Your task to perform on an android device: Go to calendar. Show me events next week Image 0: 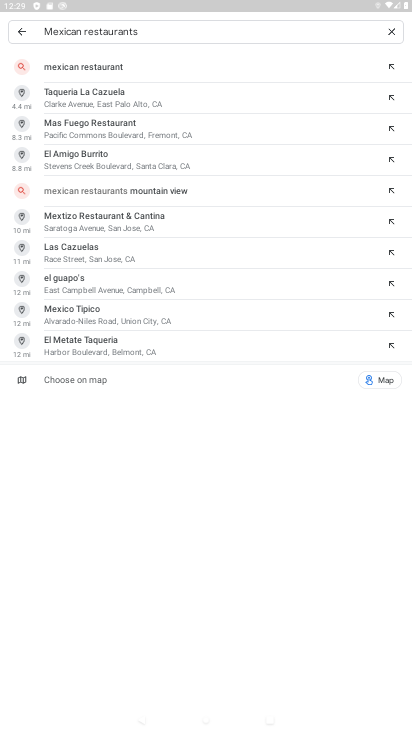
Step 0: press home button
Your task to perform on an android device: Go to calendar. Show me events next week Image 1: 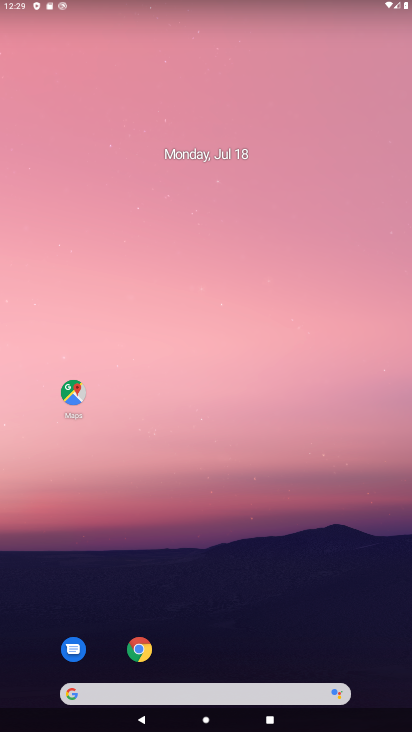
Step 1: drag from (69, 617) to (203, 130)
Your task to perform on an android device: Go to calendar. Show me events next week Image 2: 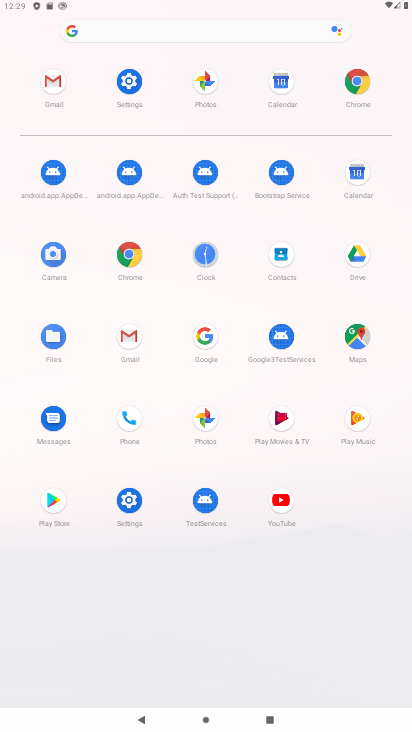
Step 2: click (354, 176)
Your task to perform on an android device: Go to calendar. Show me events next week Image 3: 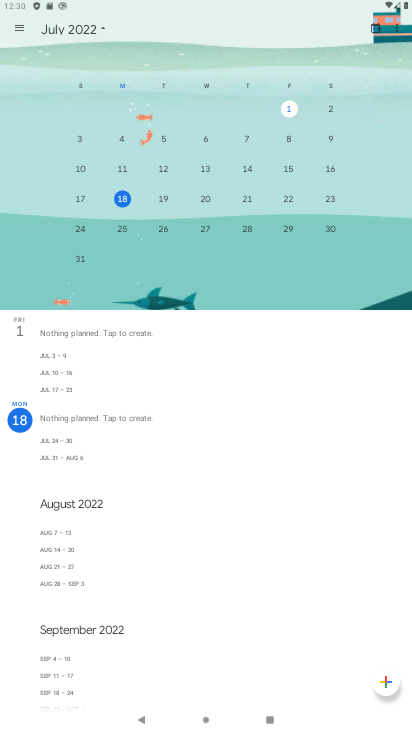
Step 3: task complete